Your task to perform on an android device: Open Yahoo.com Image 0: 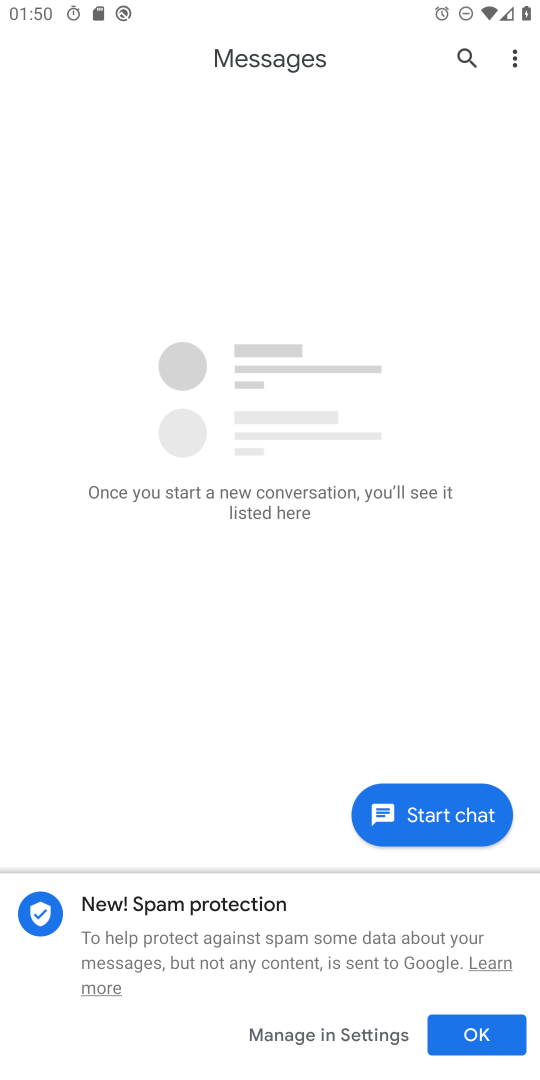
Step 0: press home button
Your task to perform on an android device: Open Yahoo.com Image 1: 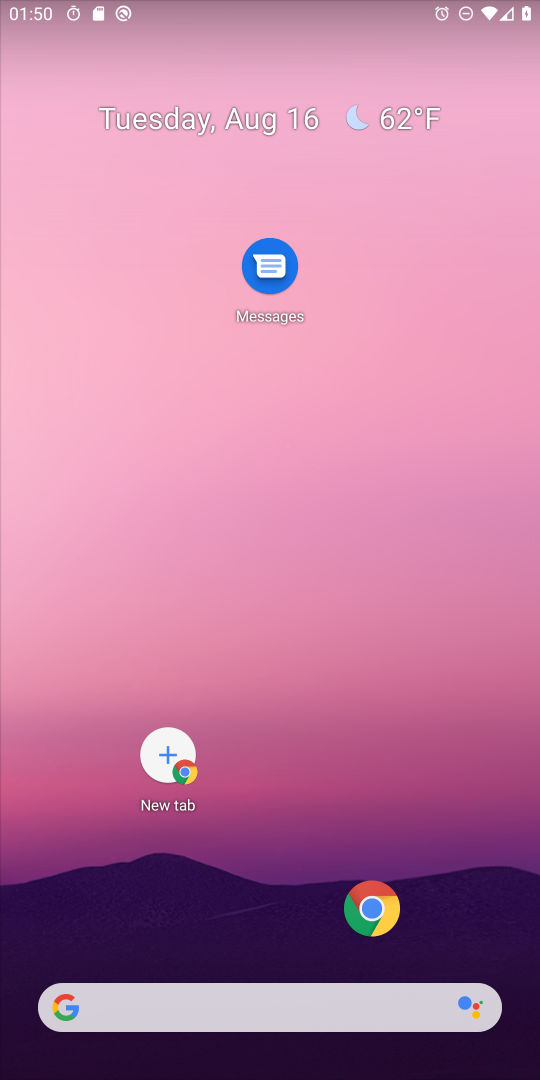
Step 1: press home button
Your task to perform on an android device: Open Yahoo.com Image 2: 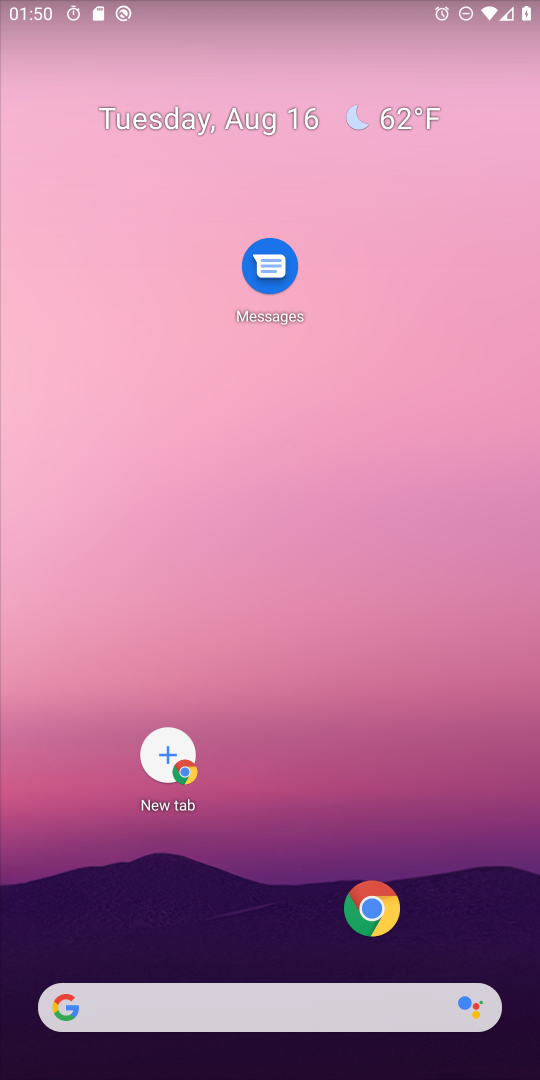
Step 2: click (164, 753)
Your task to perform on an android device: Open Yahoo.com Image 3: 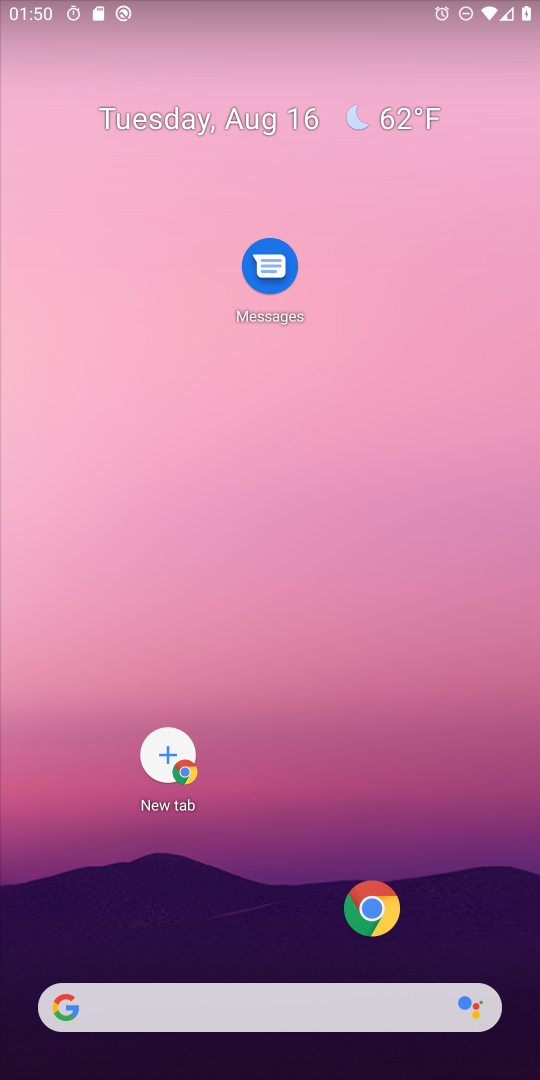
Step 3: click (164, 753)
Your task to perform on an android device: Open Yahoo.com Image 4: 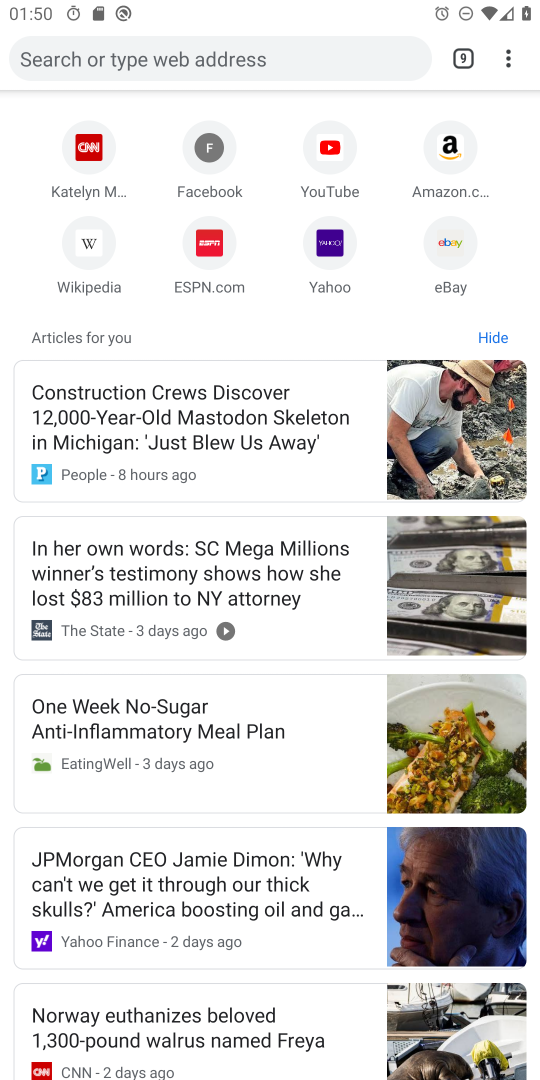
Step 4: click (318, 262)
Your task to perform on an android device: Open Yahoo.com Image 5: 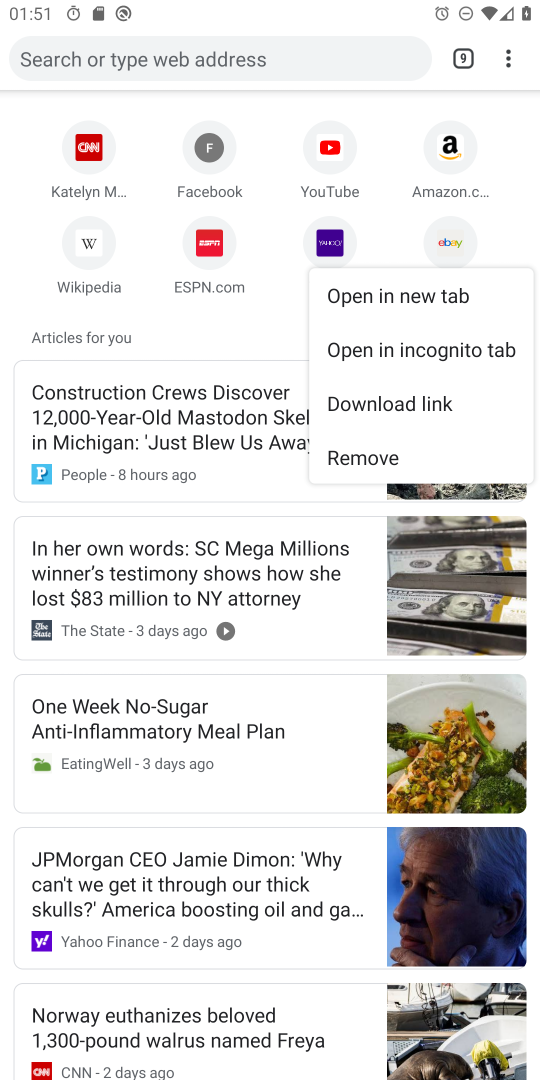
Step 5: click (332, 249)
Your task to perform on an android device: Open Yahoo.com Image 6: 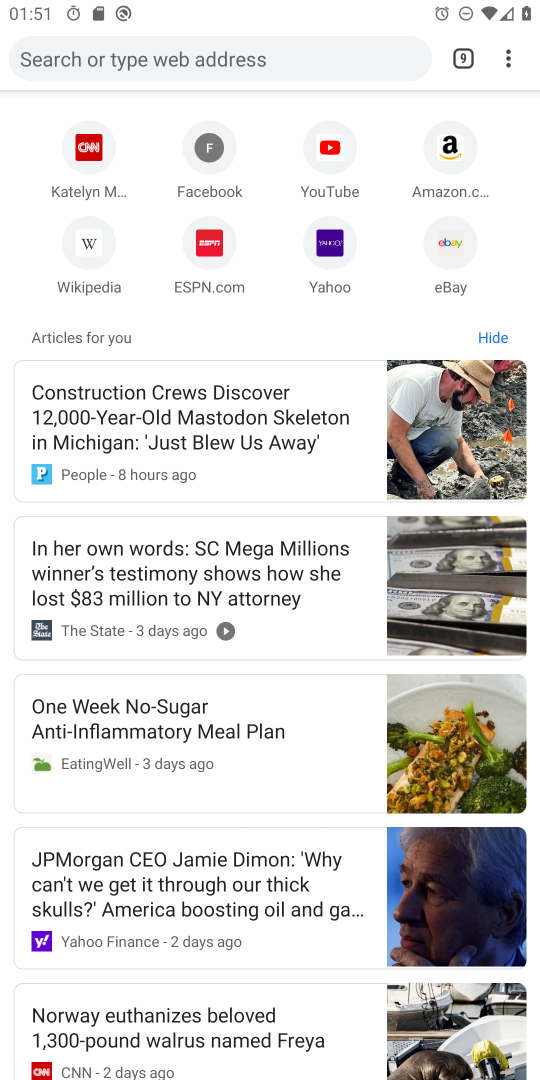
Step 6: click (332, 249)
Your task to perform on an android device: Open Yahoo.com Image 7: 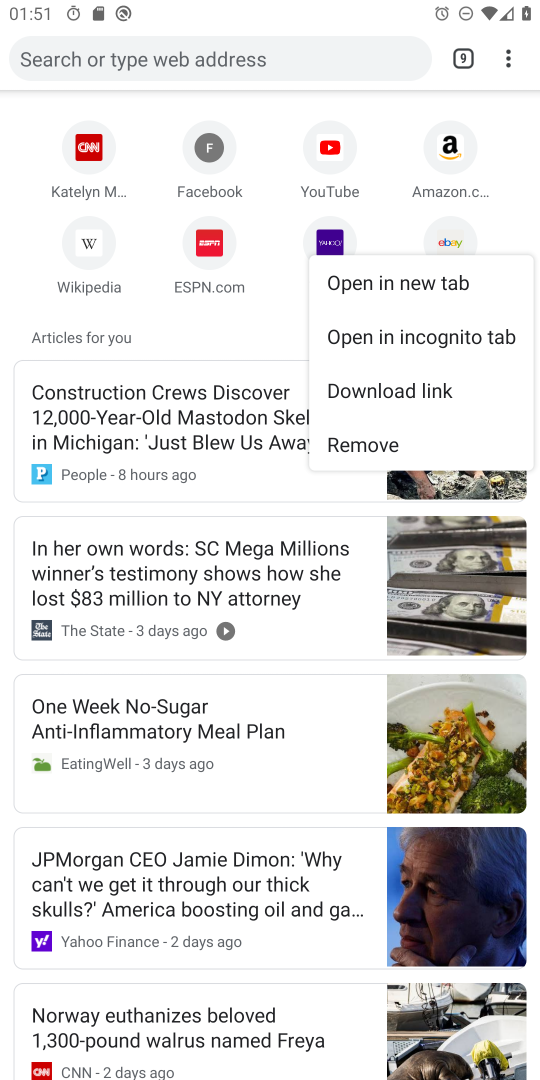
Step 7: click (431, 347)
Your task to perform on an android device: Open Yahoo.com Image 8: 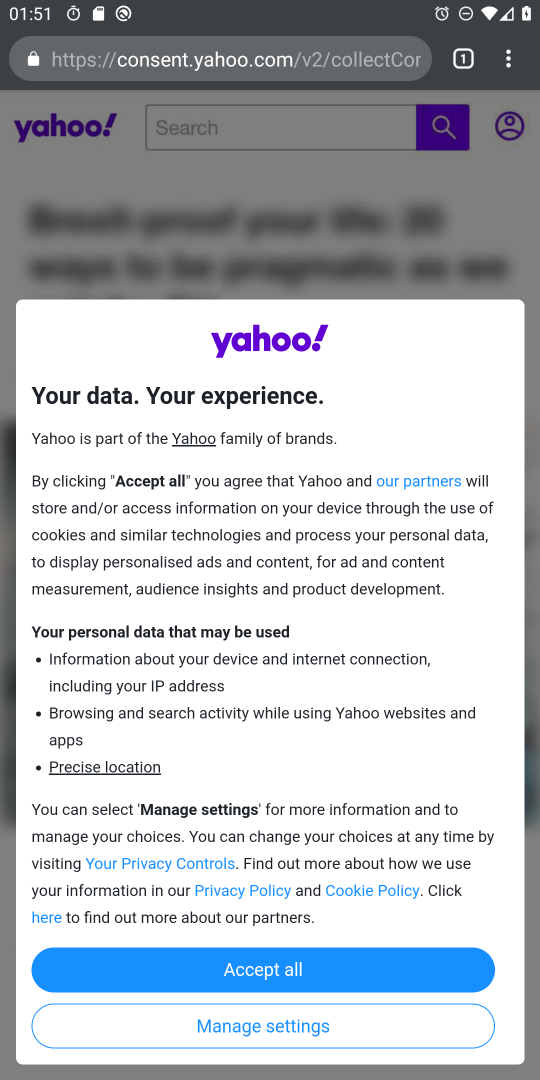
Step 8: task complete